Your task to perform on an android device: turn off data saver in the chrome app Image 0: 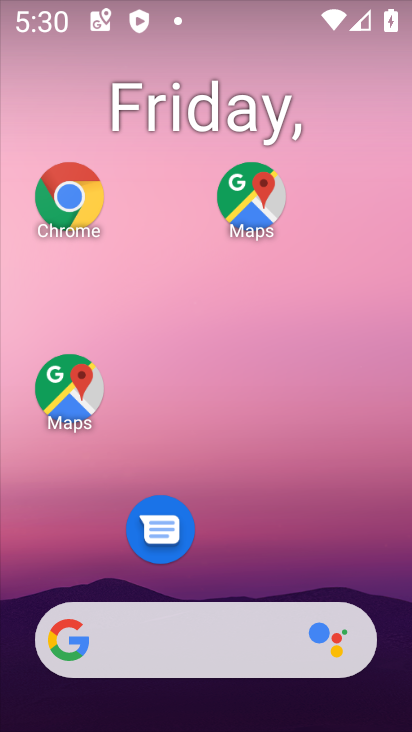
Step 0: drag from (254, 566) to (276, 227)
Your task to perform on an android device: turn off data saver in the chrome app Image 1: 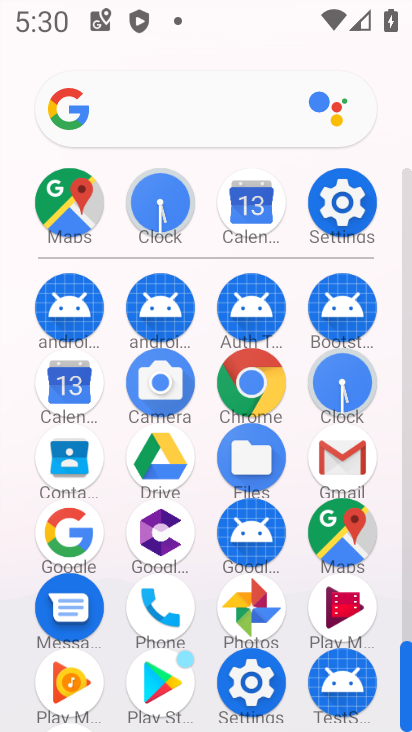
Step 1: click (251, 377)
Your task to perform on an android device: turn off data saver in the chrome app Image 2: 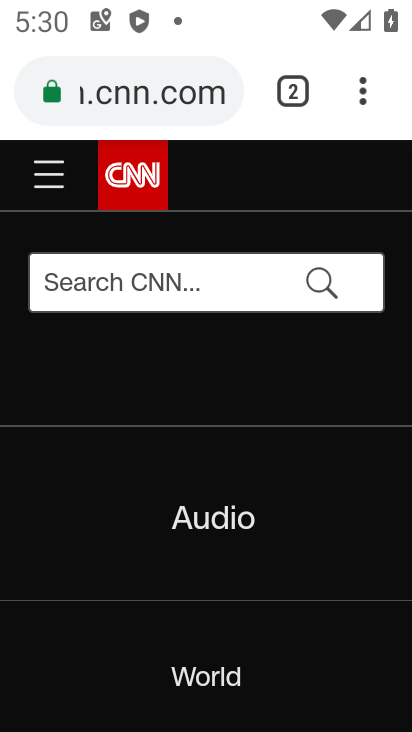
Step 2: click (361, 88)
Your task to perform on an android device: turn off data saver in the chrome app Image 3: 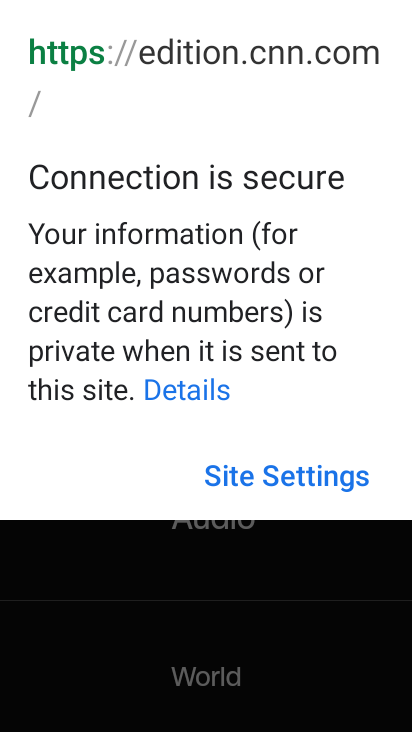
Step 3: click (37, 587)
Your task to perform on an android device: turn off data saver in the chrome app Image 4: 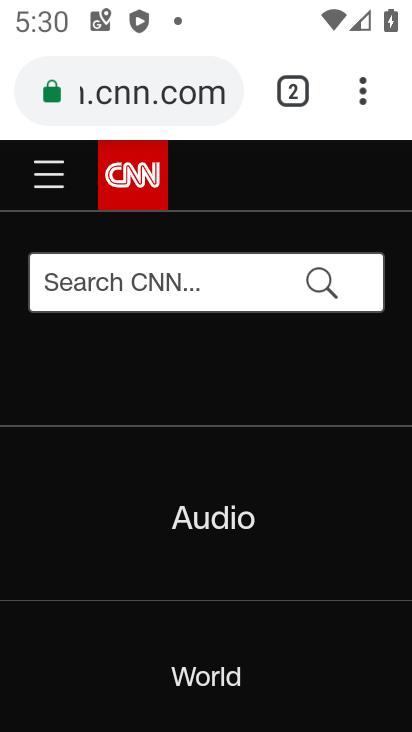
Step 4: click (364, 93)
Your task to perform on an android device: turn off data saver in the chrome app Image 5: 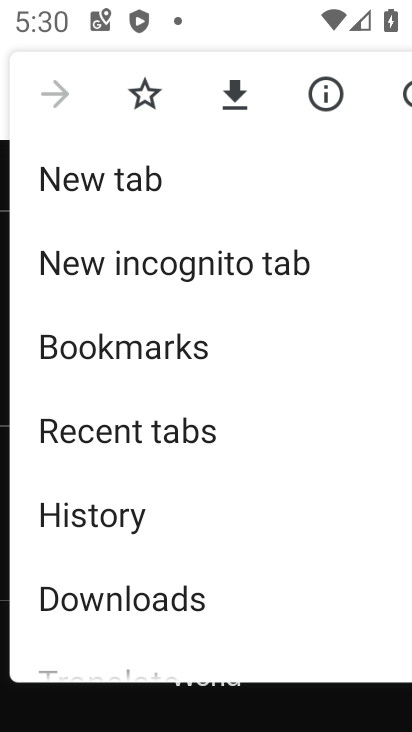
Step 5: drag from (184, 567) to (206, 228)
Your task to perform on an android device: turn off data saver in the chrome app Image 6: 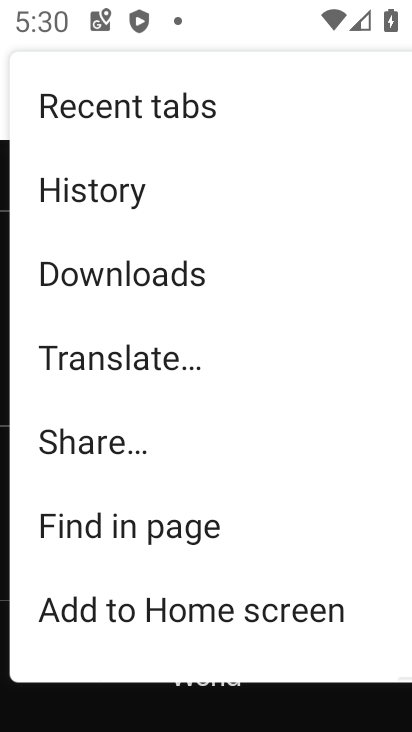
Step 6: drag from (218, 551) to (218, 243)
Your task to perform on an android device: turn off data saver in the chrome app Image 7: 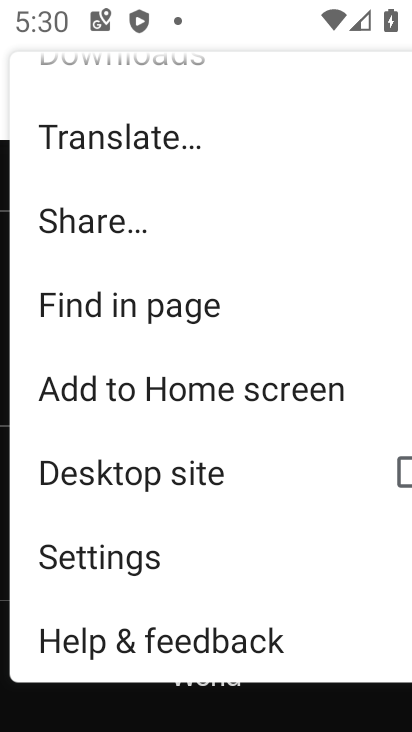
Step 7: click (126, 549)
Your task to perform on an android device: turn off data saver in the chrome app Image 8: 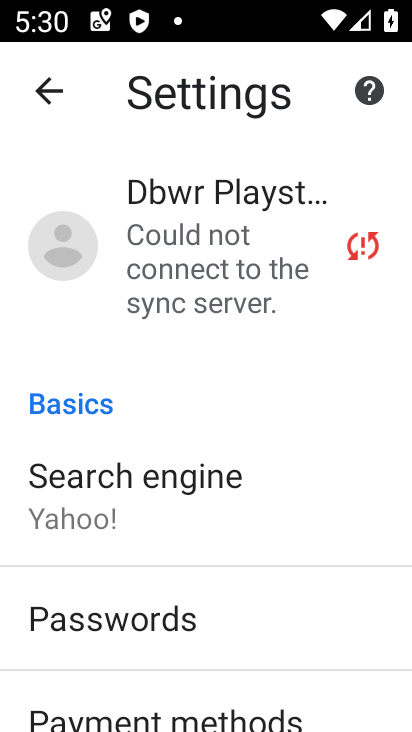
Step 8: drag from (265, 246) to (273, 202)
Your task to perform on an android device: turn off data saver in the chrome app Image 9: 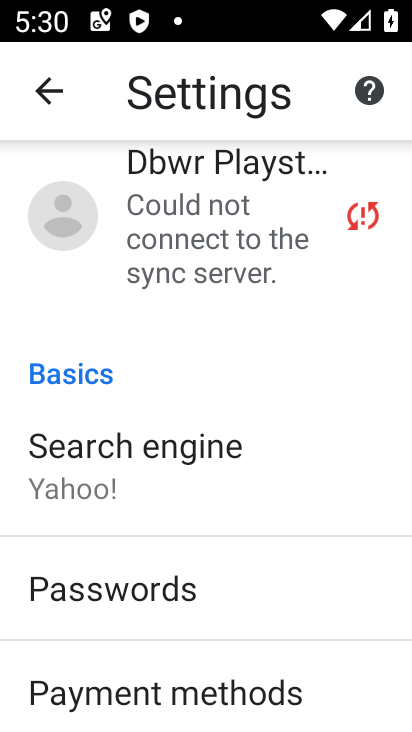
Step 9: drag from (182, 636) to (247, 264)
Your task to perform on an android device: turn off data saver in the chrome app Image 10: 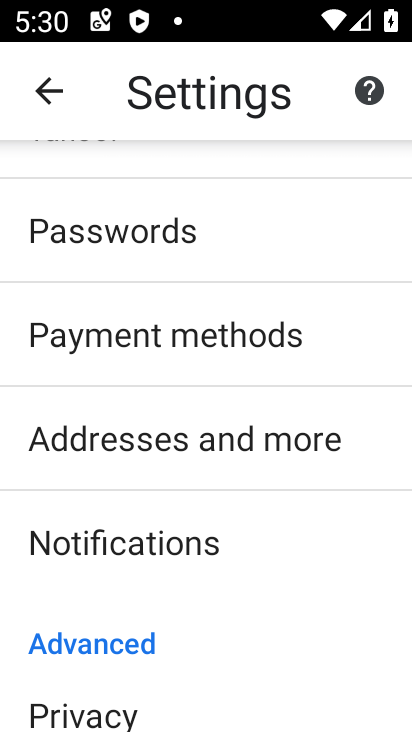
Step 10: drag from (204, 673) to (230, 287)
Your task to perform on an android device: turn off data saver in the chrome app Image 11: 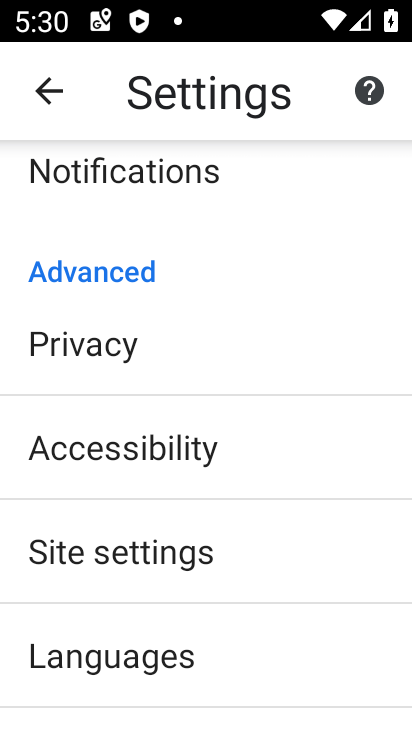
Step 11: drag from (232, 668) to (255, 360)
Your task to perform on an android device: turn off data saver in the chrome app Image 12: 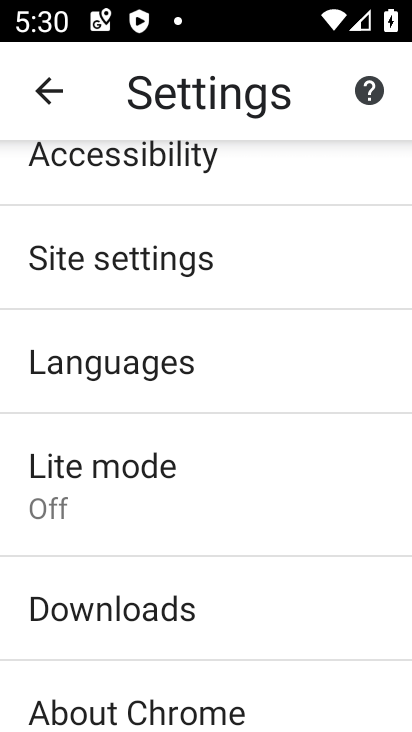
Step 12: click (146, 481)
Your task to perform on an android device: turn off data saver in the chrome app Image 13: 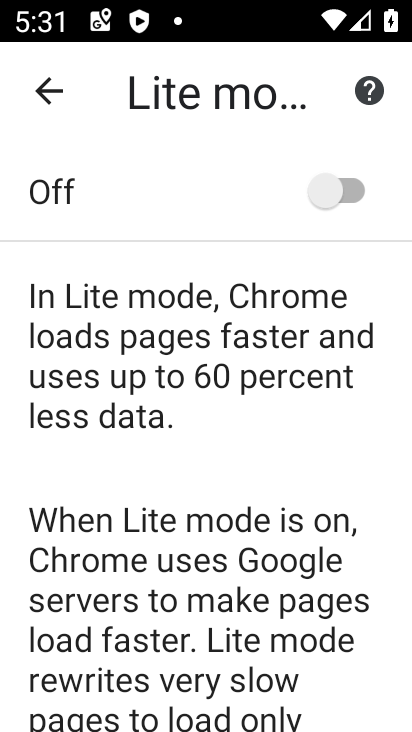
Step 13: task complete